Your task to perform on an android device: turn off javascript in the chrome app Image 0: 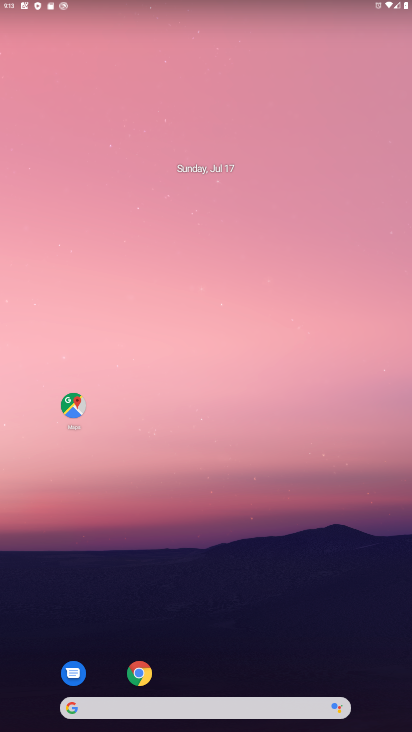
Step 0: drag from (246, 580) to (8, 157)
Your task to perform on an android device: turn off javascript in the chrome app Image 1: 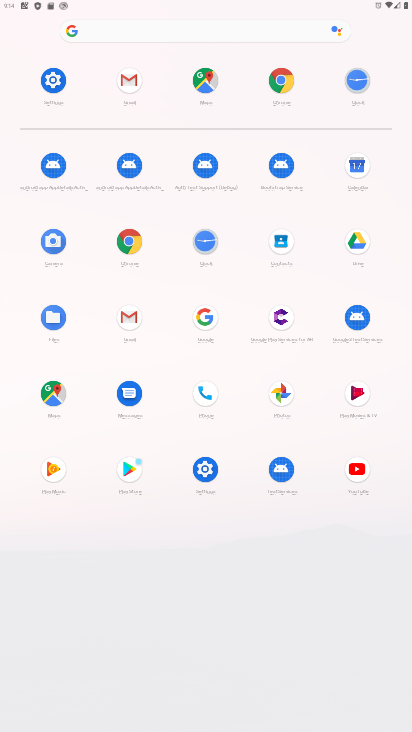
Step 1: click (284, 84)
Your task to perform on an android device: turn off javascript in the chrome app Image 2: 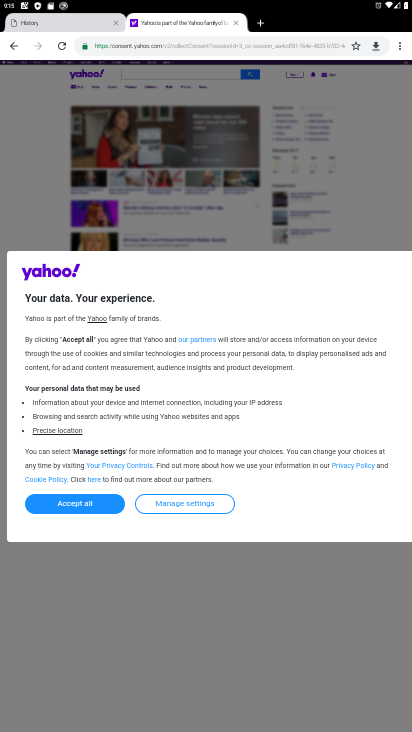
Step 2: drag from (402, 38) to (310, 306)
Your task to perform on an android device: turn off javascript in the chrome app Image 3: 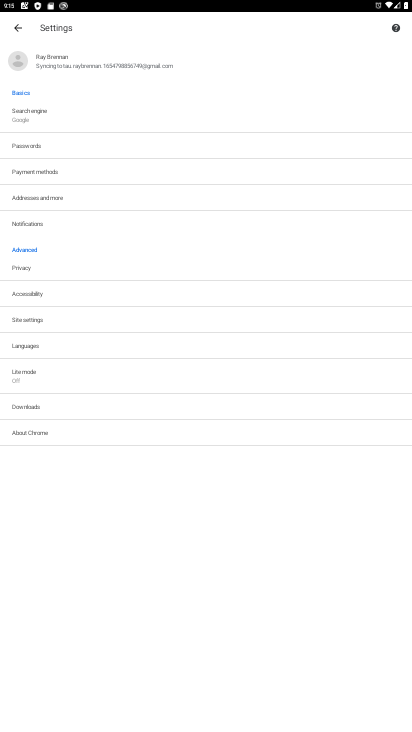
Step 3: click (40, 320)
Your task to perform on an android device: turn off javascript in the chrome app Image 4: 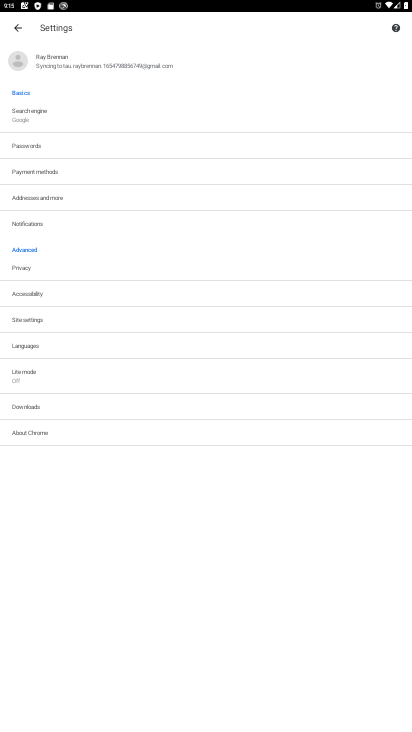
Step 4: click (35, 319)
Your task to perform on an android device: turn off javascript in the chrome app Image 5: 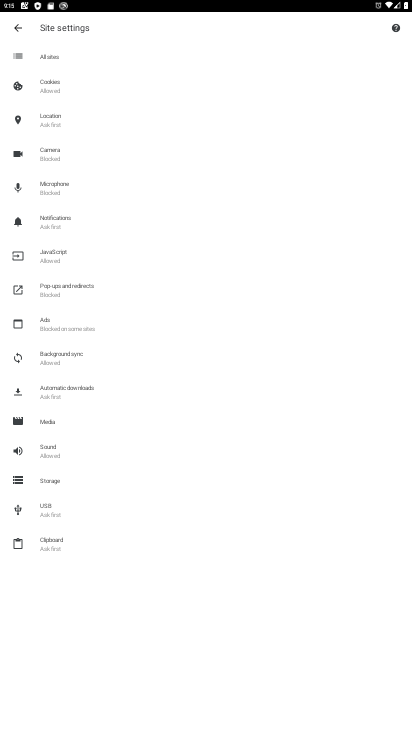
Step 5: click (55, 254)
Your task to perform on an android device: turn off javascript in the chrome app Image 6: 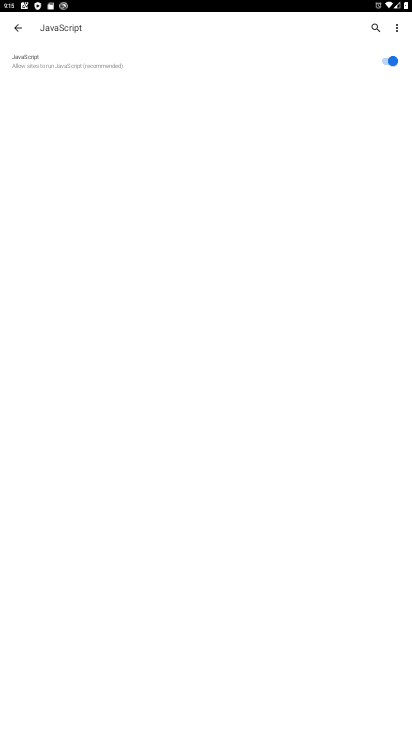
Step 6: click (388, 58)
Your task to perform on an android device: turn off javascript in the chrome app Image 7: 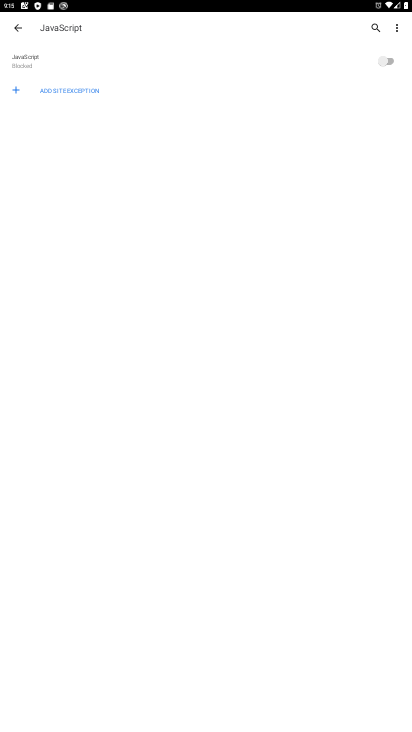
Step 7: task complete